Your task to perform on an android device: change notifications settings Image 0: 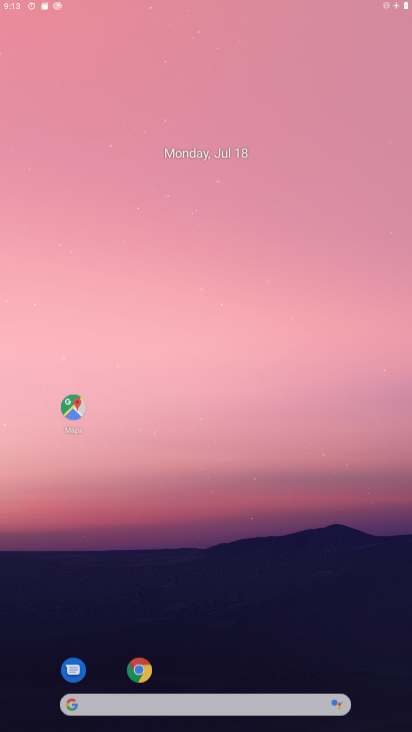
Step 0: press home button
Your task to perform on an android device: change notifications settings Image 1: 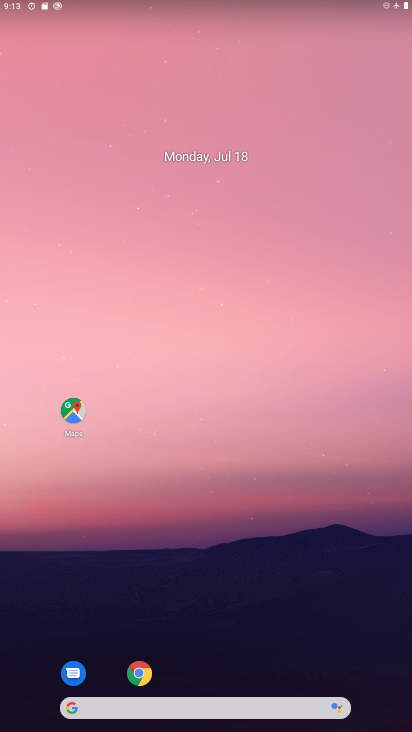
Step 1: drag from (247, 642) to (185, 6)
Your task to perform on an android device: change notifications settings Image 2: 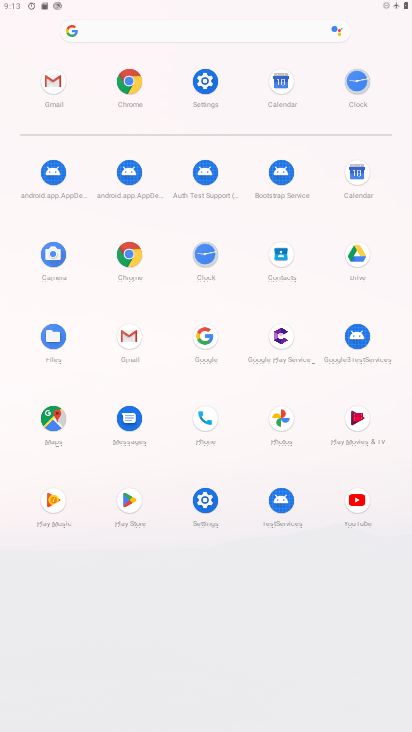
Step 2: click (203, 79)
Your task to perform on an android device: change notifications settings Image 3: 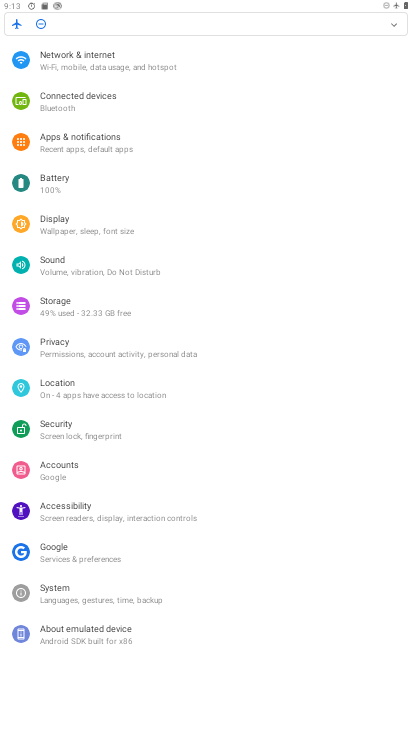
Step 3: click (78, 153)
Your task to perform on an android device: change notifications settings Image 4: 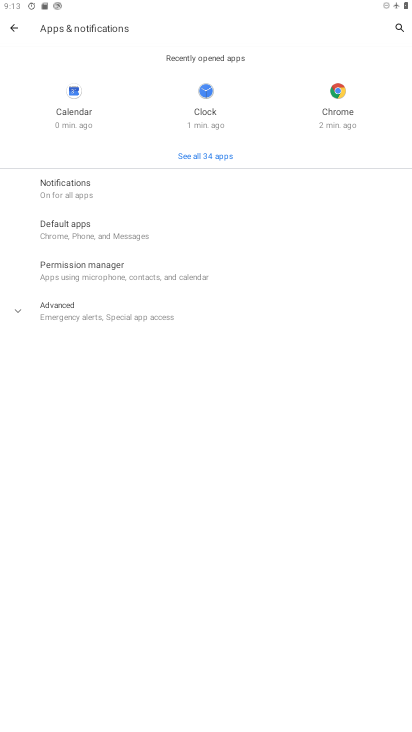
Step 4: click (71, 186)
Your task to perform on an android device: change notifications settings Image 5: 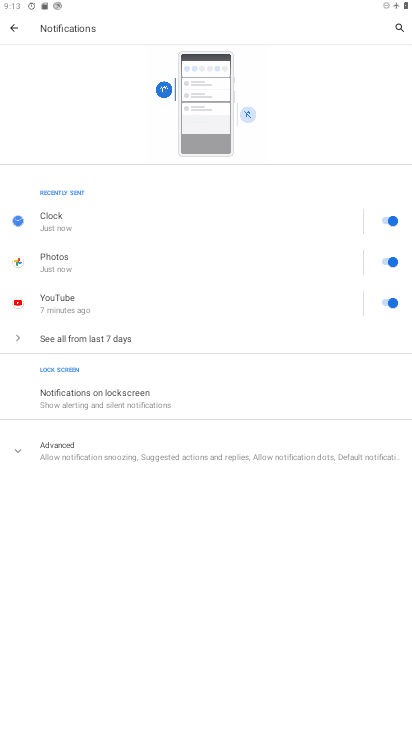
Step 5: click (97, 392)
Your task to perform on an android device: change notifications settings Image 6: 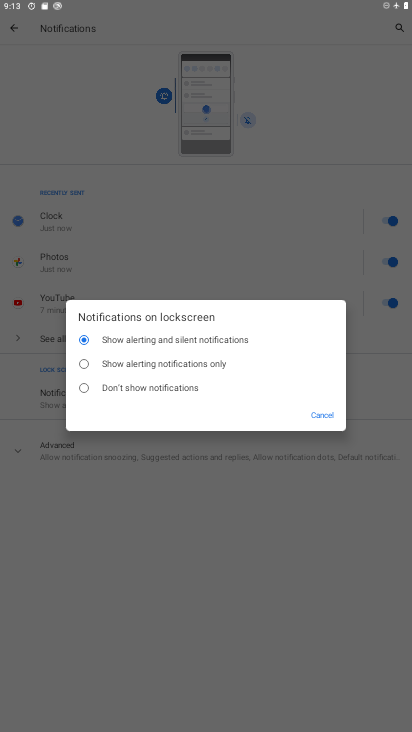
Step 6: click (84, 386)
Your task to perform on an android device: change notifications settings Image 7: 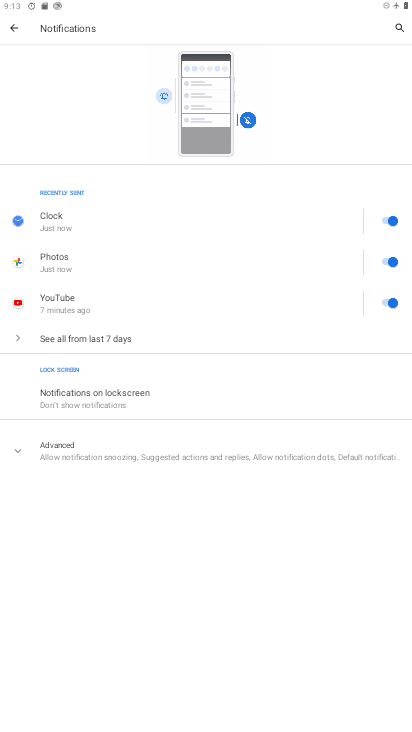
Step 7: task complete